Your task to perform on an android device: turn pop-ups on in chrome Image 0: 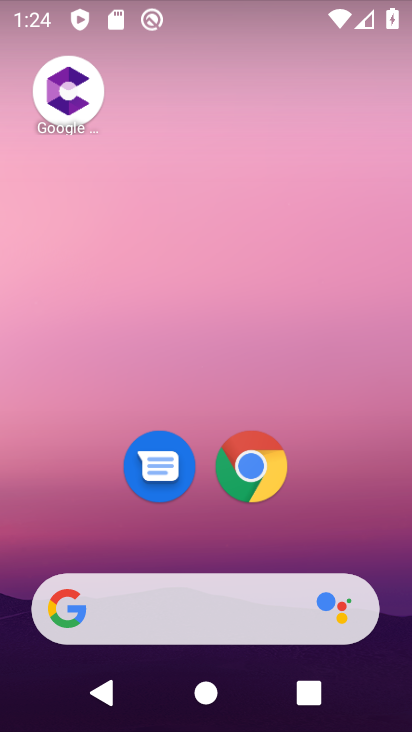
Step 0: click (260, 442)
Your task to perform on an android device: turn pop-ups on in chrome Image 1: 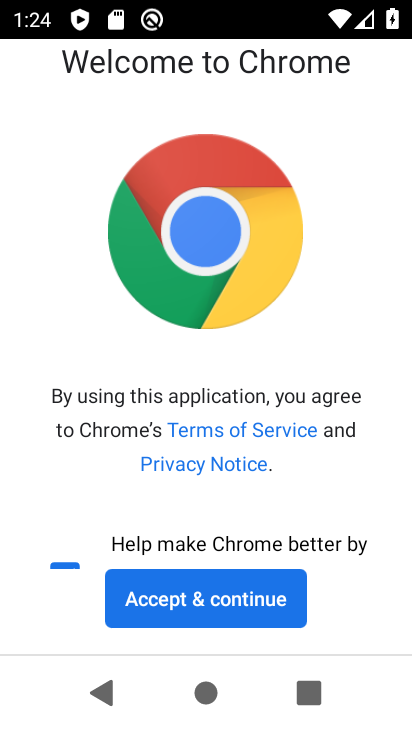
Step 1: click (281, 601)
Your task to perform on an android device: turn pop-ups on in chrome Image 2: 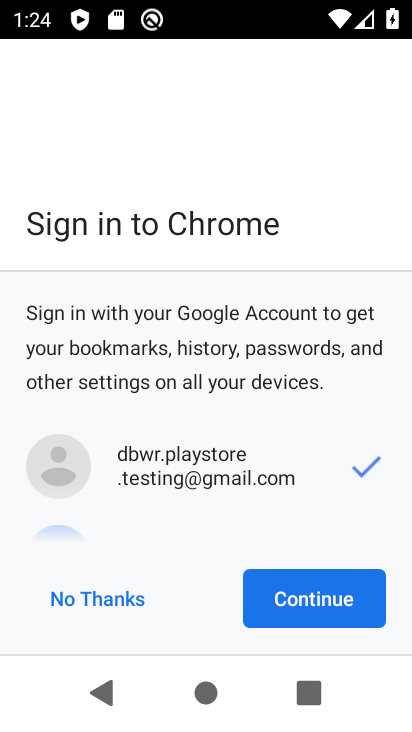
Step 2: click (321, 589)
Your task to perform on an android device: turn pop-ups on in chrome Image 3: 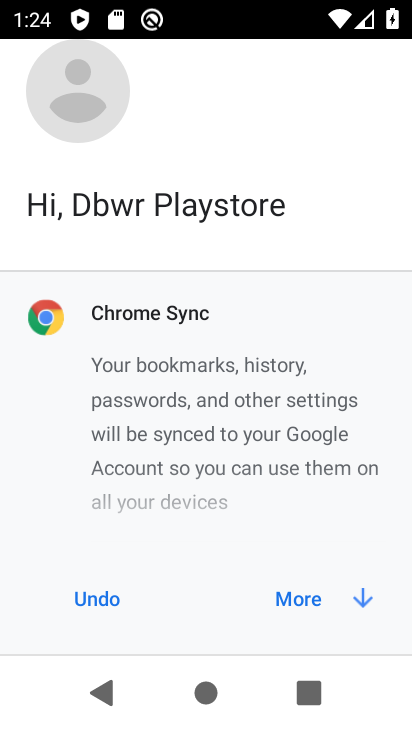
Step 3: click (284, 599)
Your task to perform on an android device: turn pop-ups on in chrome Image 4: 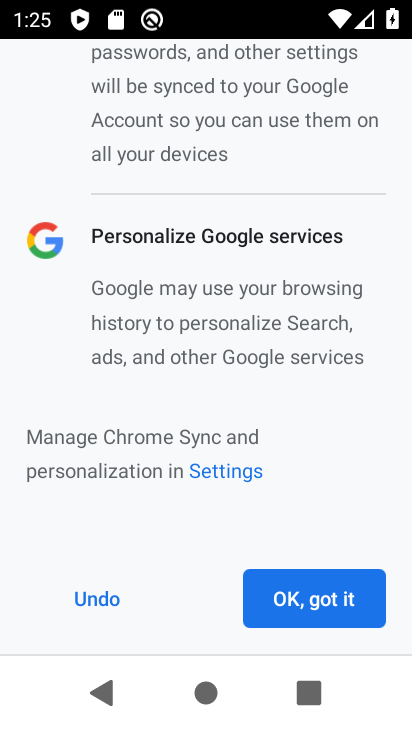
Step 4: click (374, 610)
Your task to perform on an android device: turn pop-ups on in chrome Image 5: 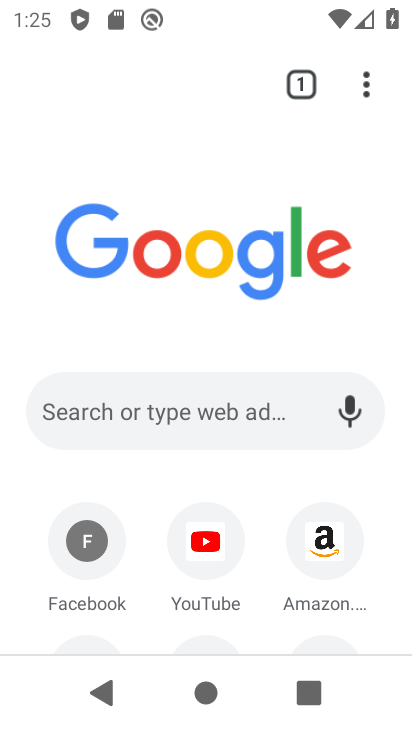
Step 5: click (353, 98)
Your task to perform on an android device: turn pop-ups on in chrome Image 6: 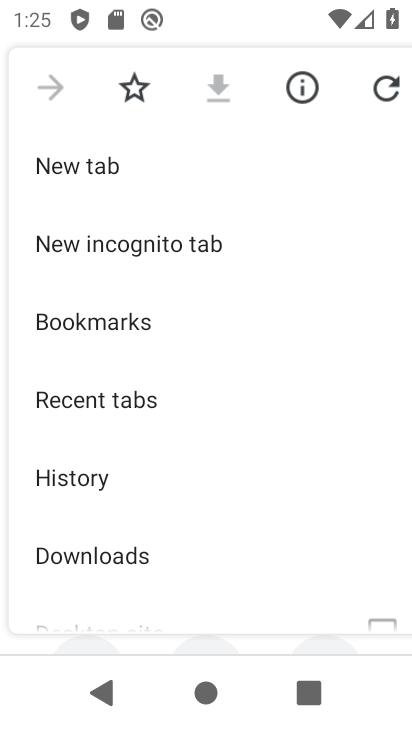
Step 6: drag from (226, 439) to (213, 297)
Your task to perform on an android device: turn pop-ups on in chrome Image 7: 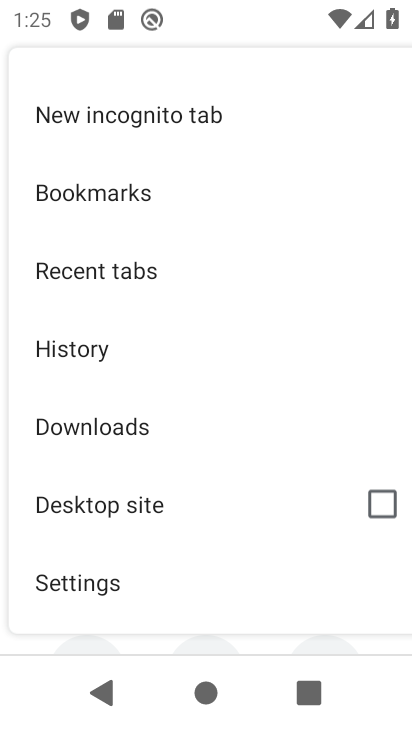
Step 7: drag from (244, 513) to (240, 380)
Your task to perform on an android device: turn pop-ups on in chrome Image 8: 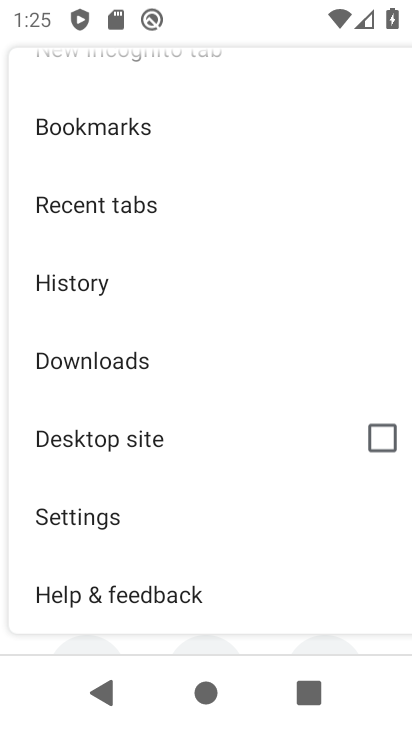
Step 8: click (244, 530)
Your task to perform on an android device: turn pop-ups on in chrome Image 9: 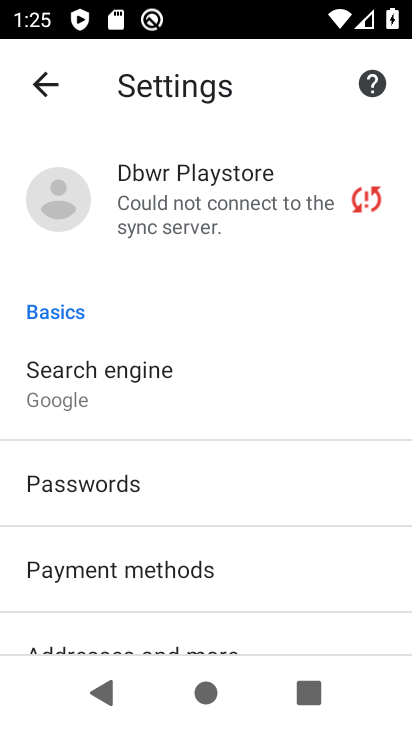
Step 9: drag from (238, 543) to (219, 306)
Your task to perform on an android device: turn pop-ups on in chrome Image 10: 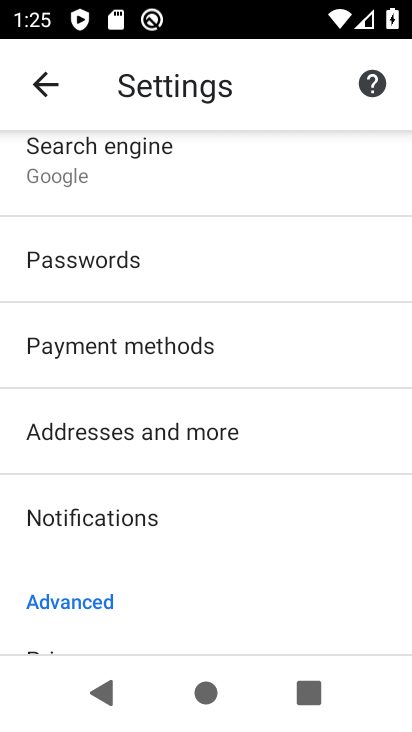
Step 10: drag from (237, 569) to (230, 370)
Your task to perform on an android device: turn pop-ups on in chrome Image 11: 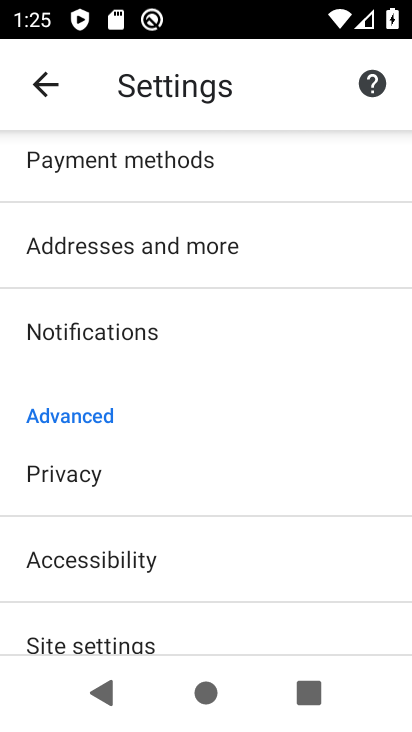
Step 11: click (208, 615)
Your task to perform on an android device: turn pop-ups on in chrome Image 12: 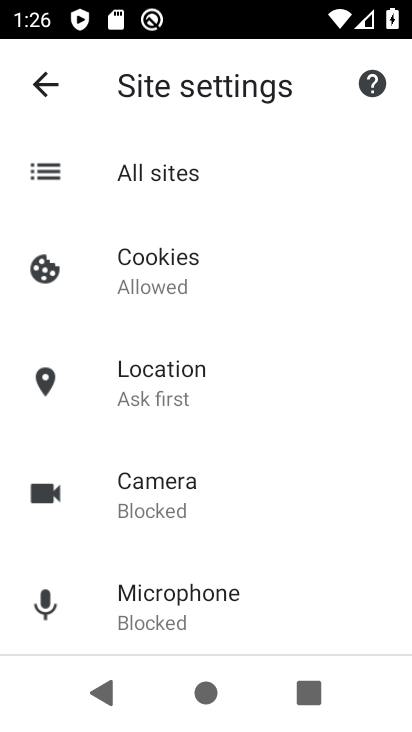
Step 12: drag from (224, 605) to (209, 331)
Your task to perform on an android device: turn pop-ups on in chrome Image 13: 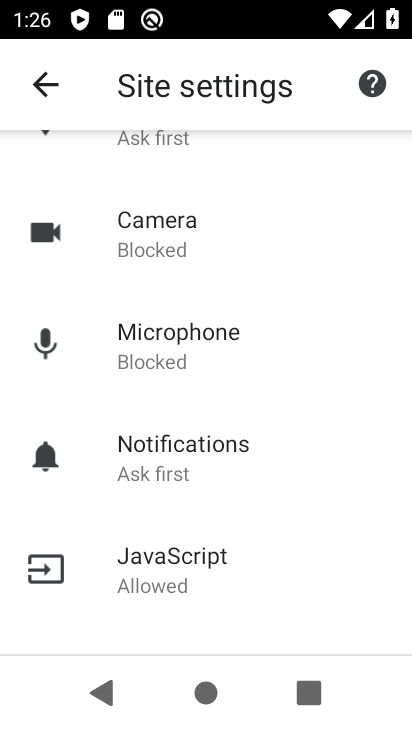
Step 13: drag from (182, 621) to (183, 482)
Your task to perform on an android device: turn pop-ups on in chrome Image 14: 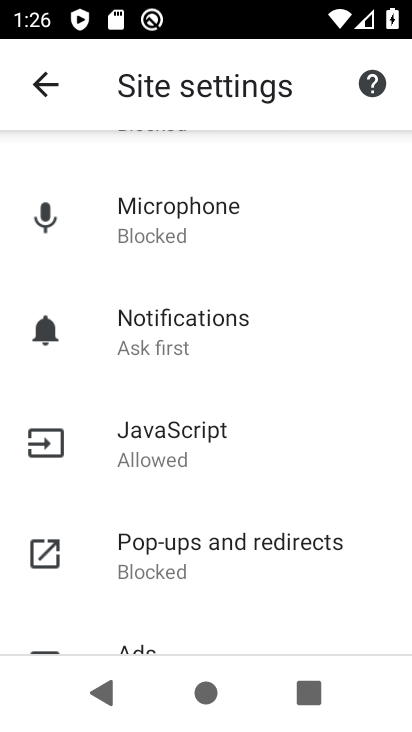
Step 14: click (181, 556)
Your task to perform on an android device: turn pop-ups on in chrome Image 15: 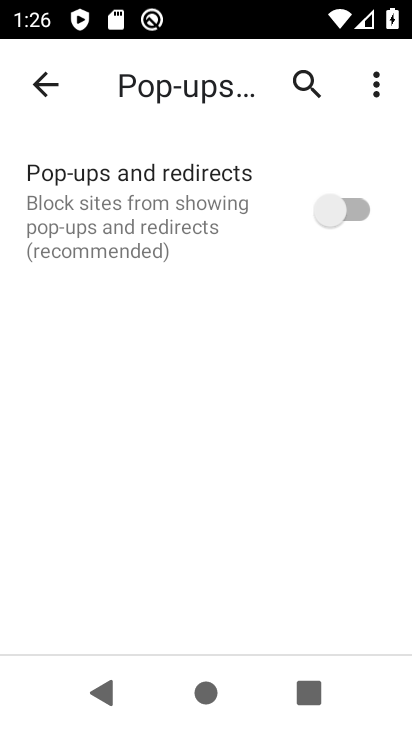
Step 15: click (343, 203)
Your task to perform on an android device: turn pop-ups on in chrome Image 16: 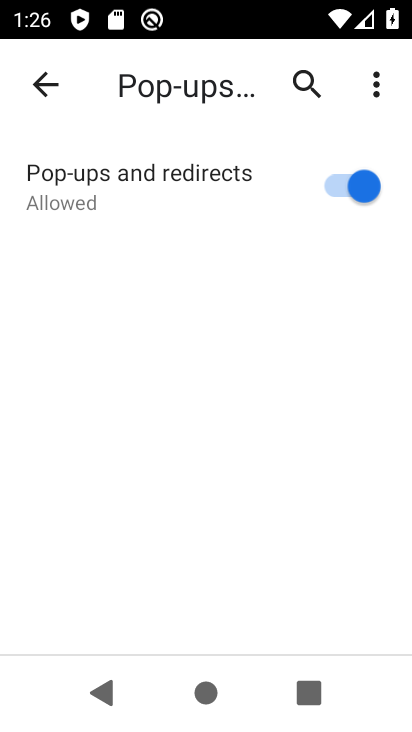
Step 16: task complete